Your task to perform on an android device: Go to Wikipedia Image 0: 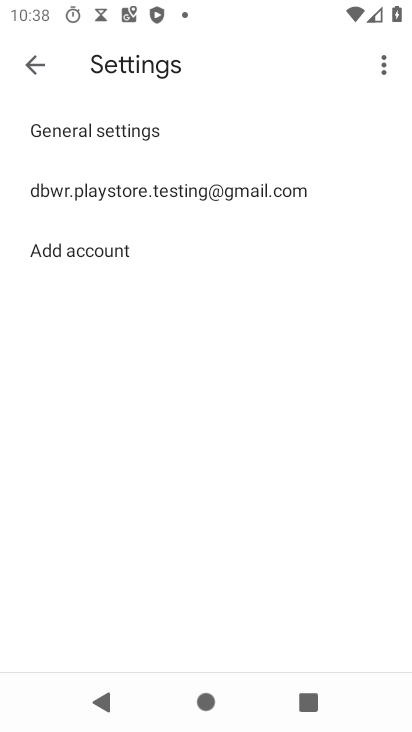
Step 0: press home button
Your task to perform on an android device: Go to Wikipedia Image 1: 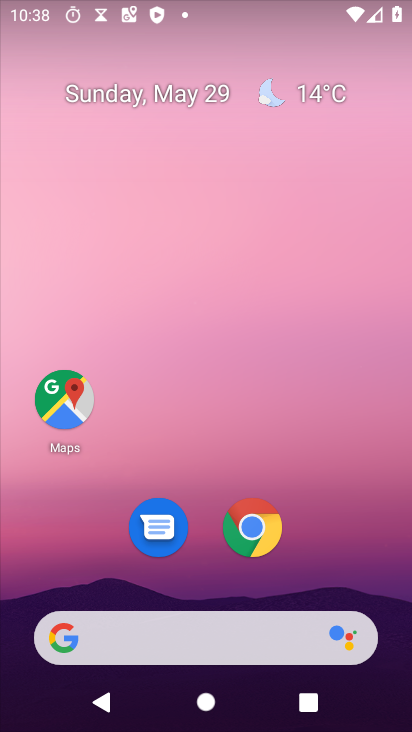
Step 1: click (265, 536)
Your task to perform on an android device: Go to Wikipedia Image 2: 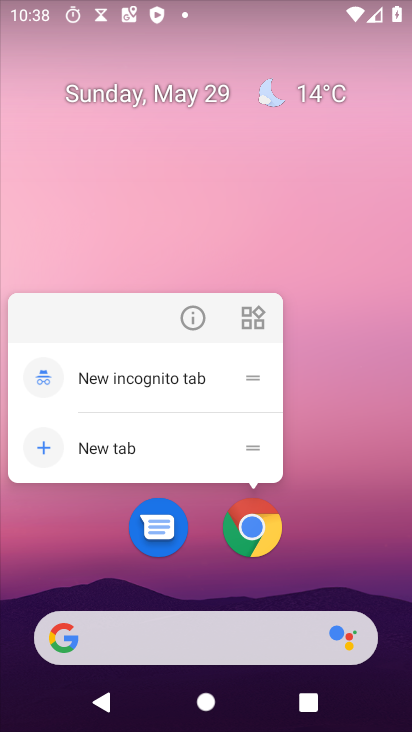
Step 2: click (239, 533)
Your task to perform on an android device: Go to Wikipedia Image 3: 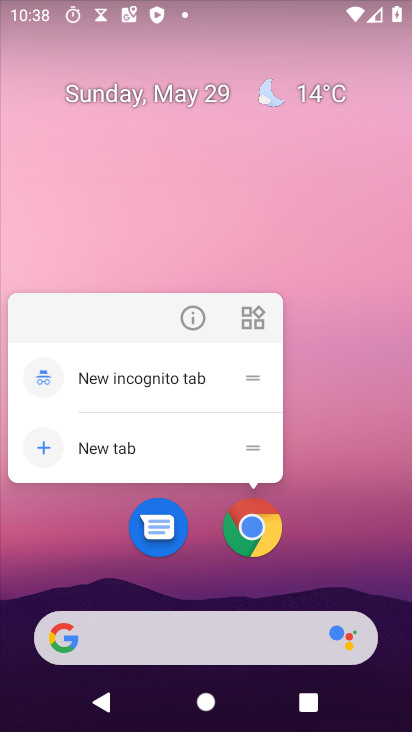
Step 3: click (248, 528)
Your task to perform on an android device: Go to Wikipedia Image 4: 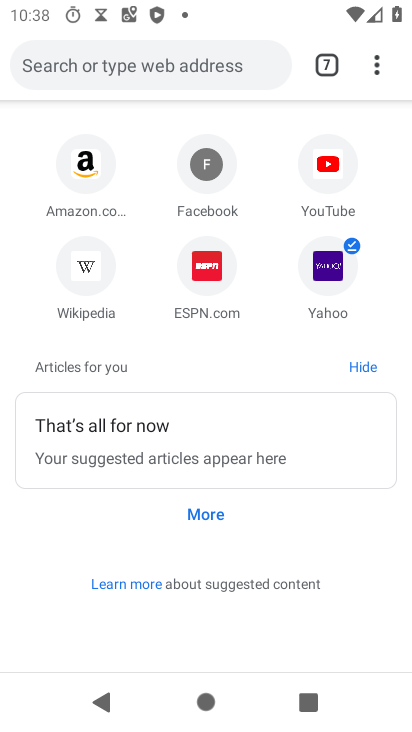
Step 4: click (84, 280)
Your task to perform on an android device: Go to Wikipedia Image 5: 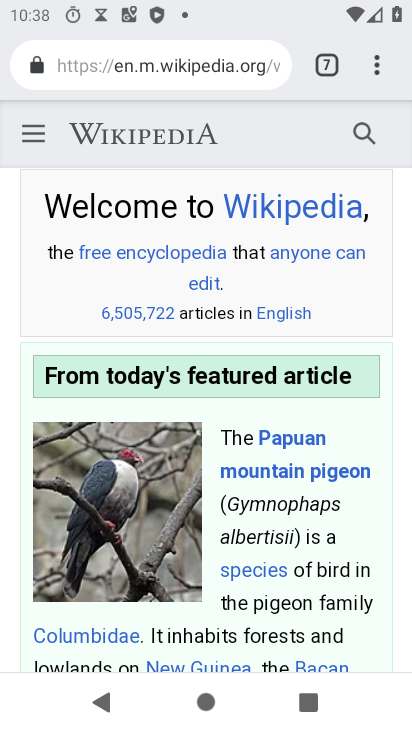
Step 5: task complete